Your task to perform on an android device: turn off wifi Image 0: 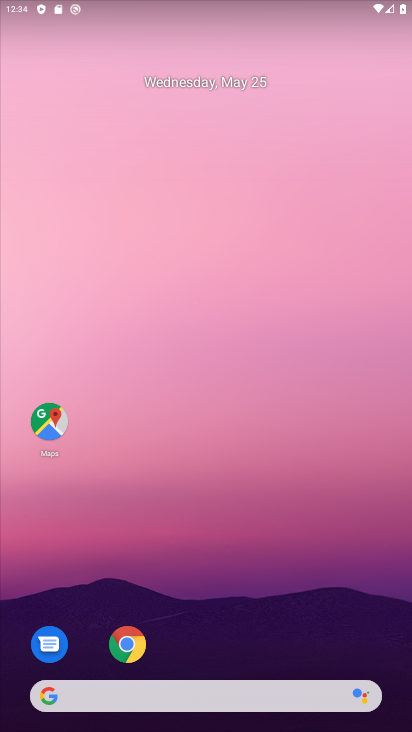
Step 0: drag from (281, 549) to (198, 16)
Your task to perform on an android device: turn off wifi Image 1: 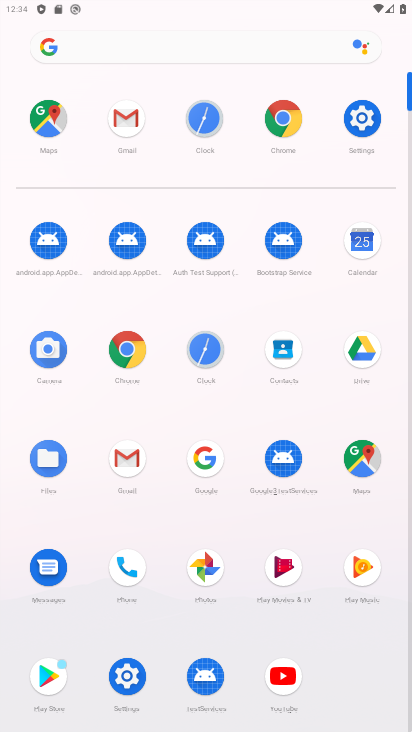
Step 1: click (360, 118)
Your task to perform on an android device: turn off wifi Image 2: 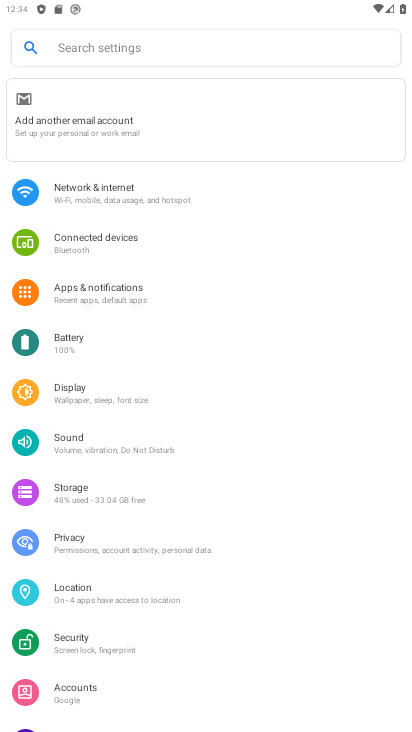
Step 2: click (101, 185)
Your task to perform on an android device: turn off wifi Image 3: 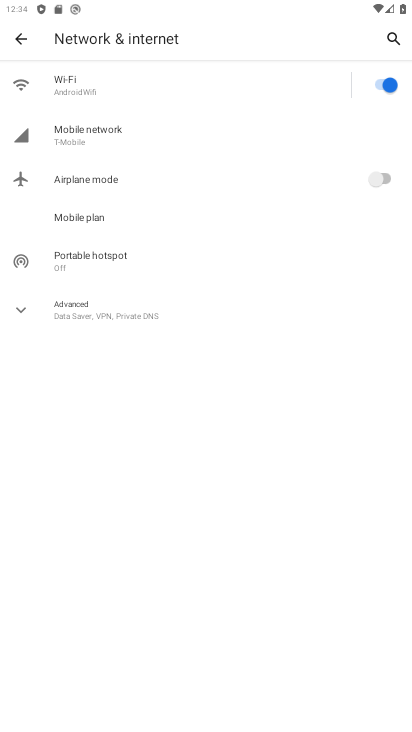
Step 3: click (381, 80)
Your task to perform on an android device: turn off wifi Image 4: 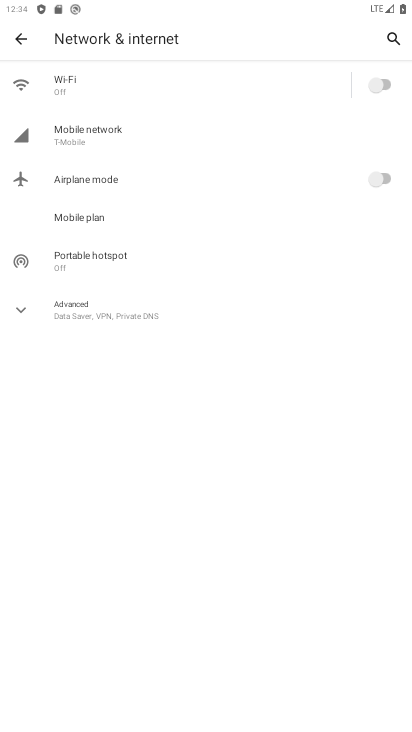
Step 4: task complete